Your task to perform on an android device: Check the news Image 0: 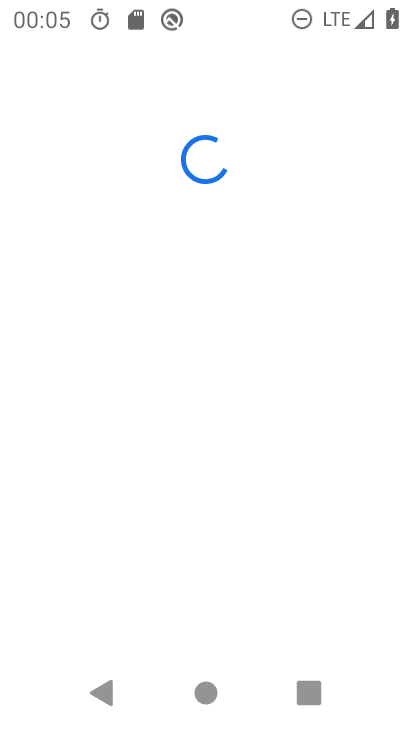
Step 0: press home button
Your task to perform on an android device: Check the news Image 1: 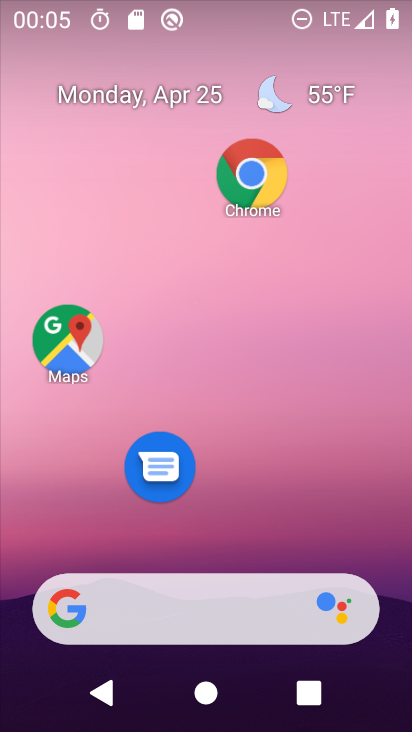
Step 1: drag from (244, 500) to (290, 28)
Your task to perform on an android device: Check the news Image 2: 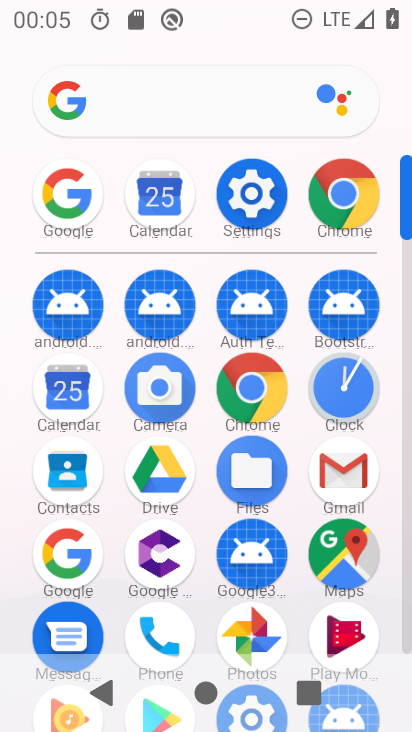
Step 2: click (66, 555)
Your task to perform on an android device: Check the news Image 3: 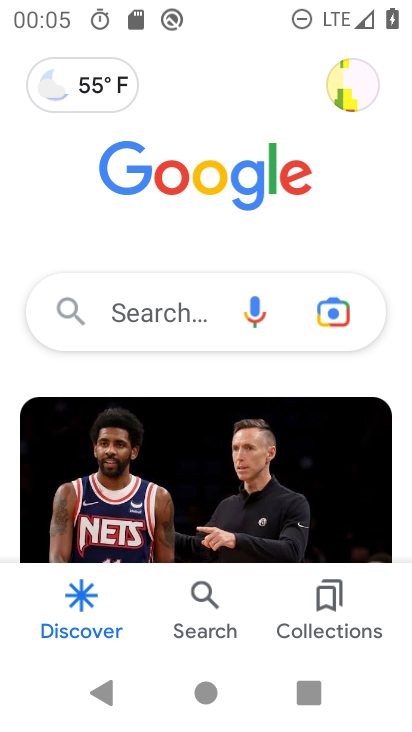
Step 3: click (181, 317)
Your task to perform on an android device: Check the news Image 4: 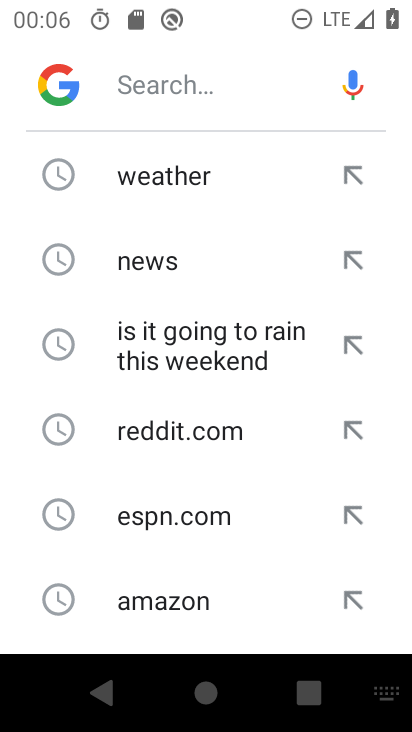
Step 4: click (200, 261)
Your task to perform on an android device: Check the news Image 5: 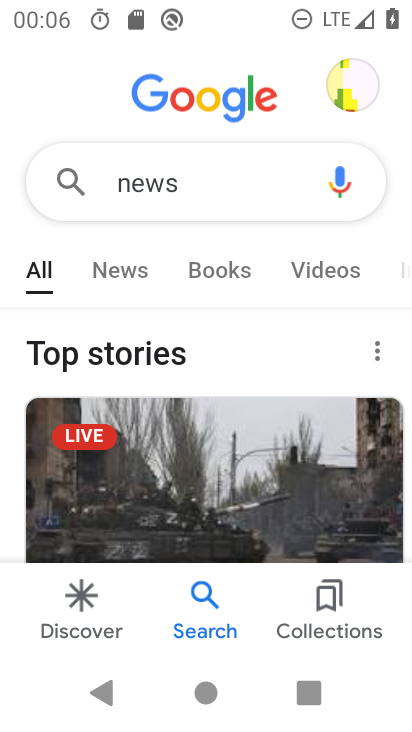
Step 5: task complete